Your task to perform on an android device: Set the phone to "Do not disturb". Image 0: 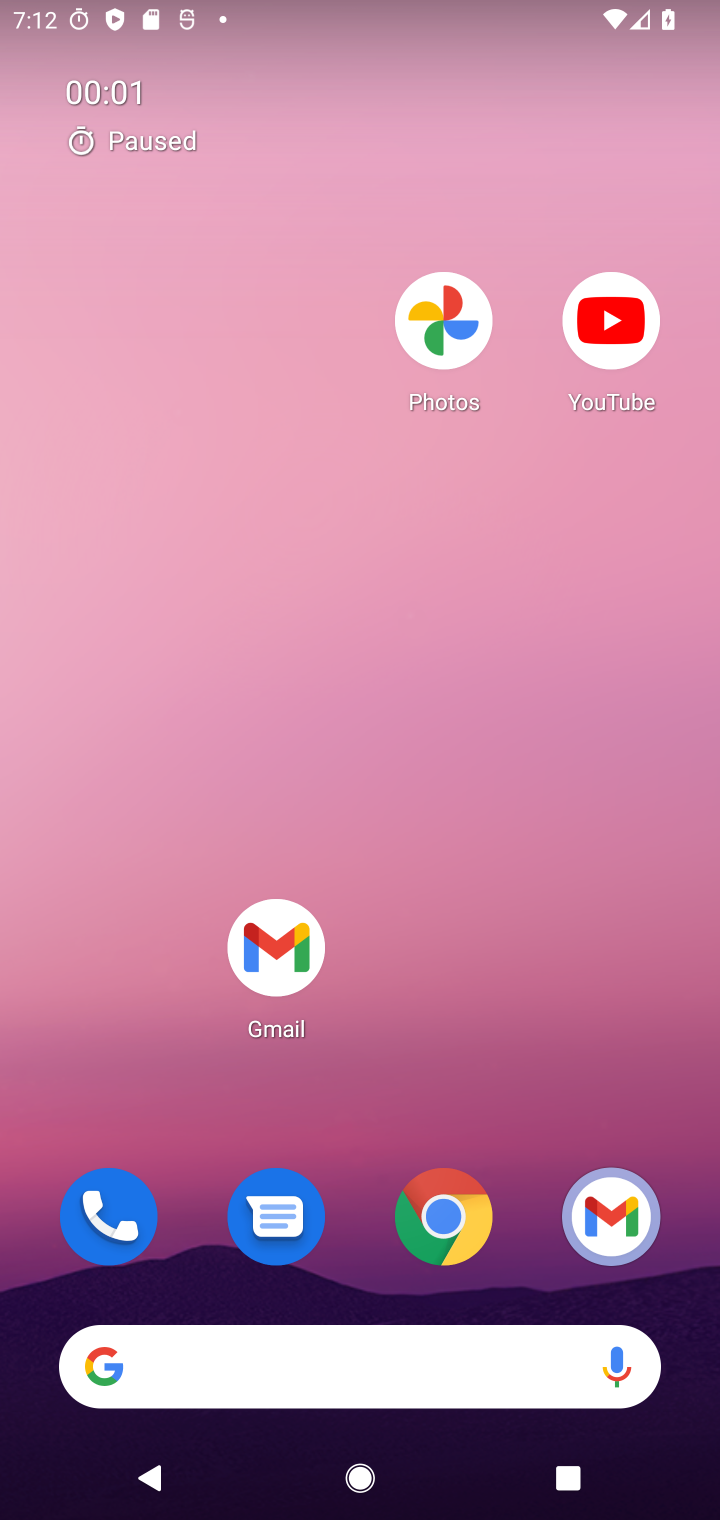
Step 0: drag from (529, 996) to (508, 142)
Your task to perform on an android device: Set the phone to "Do not disturb". Image 1: 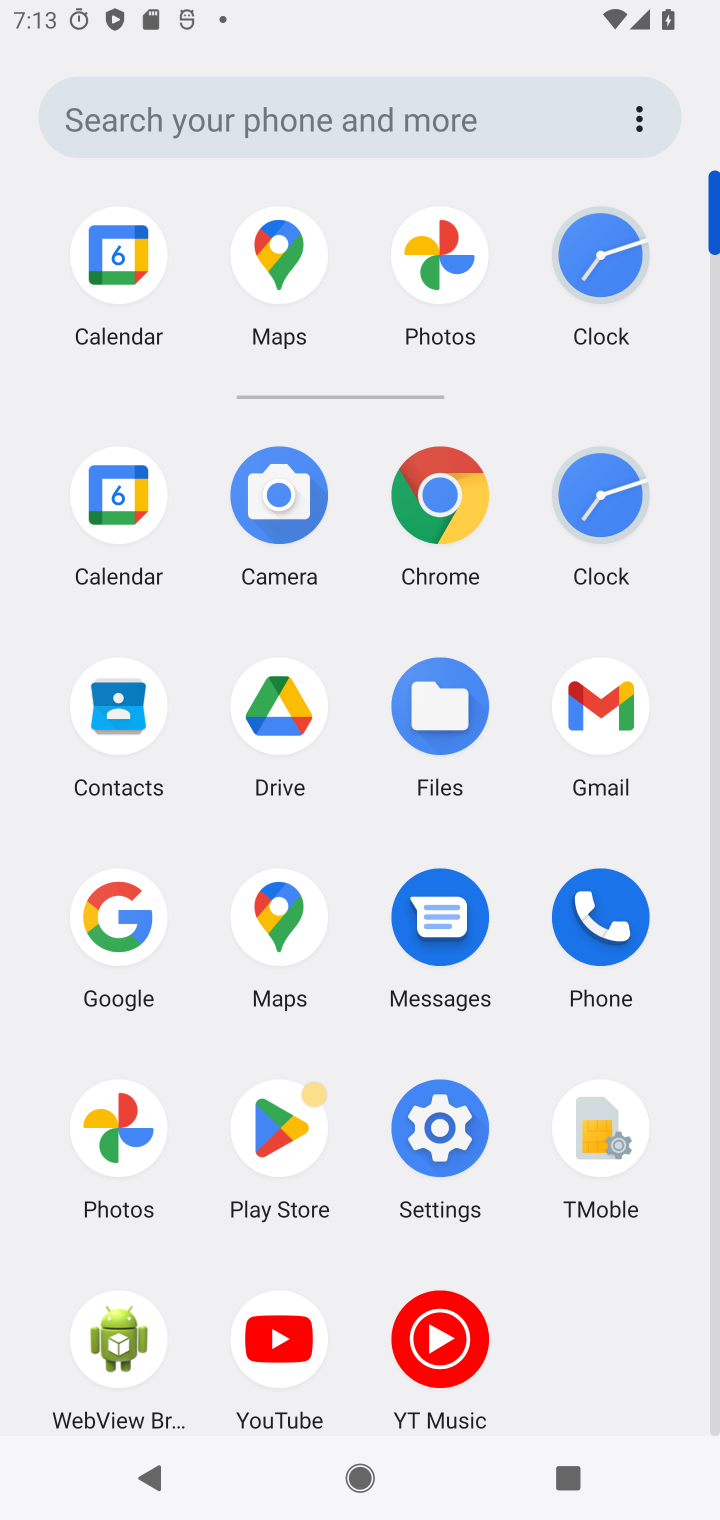
Step 1: drag from (350, 4) to (313, 1260)
Your task to perform on an android device: Set the phone to "Do not disturb". Image 2: 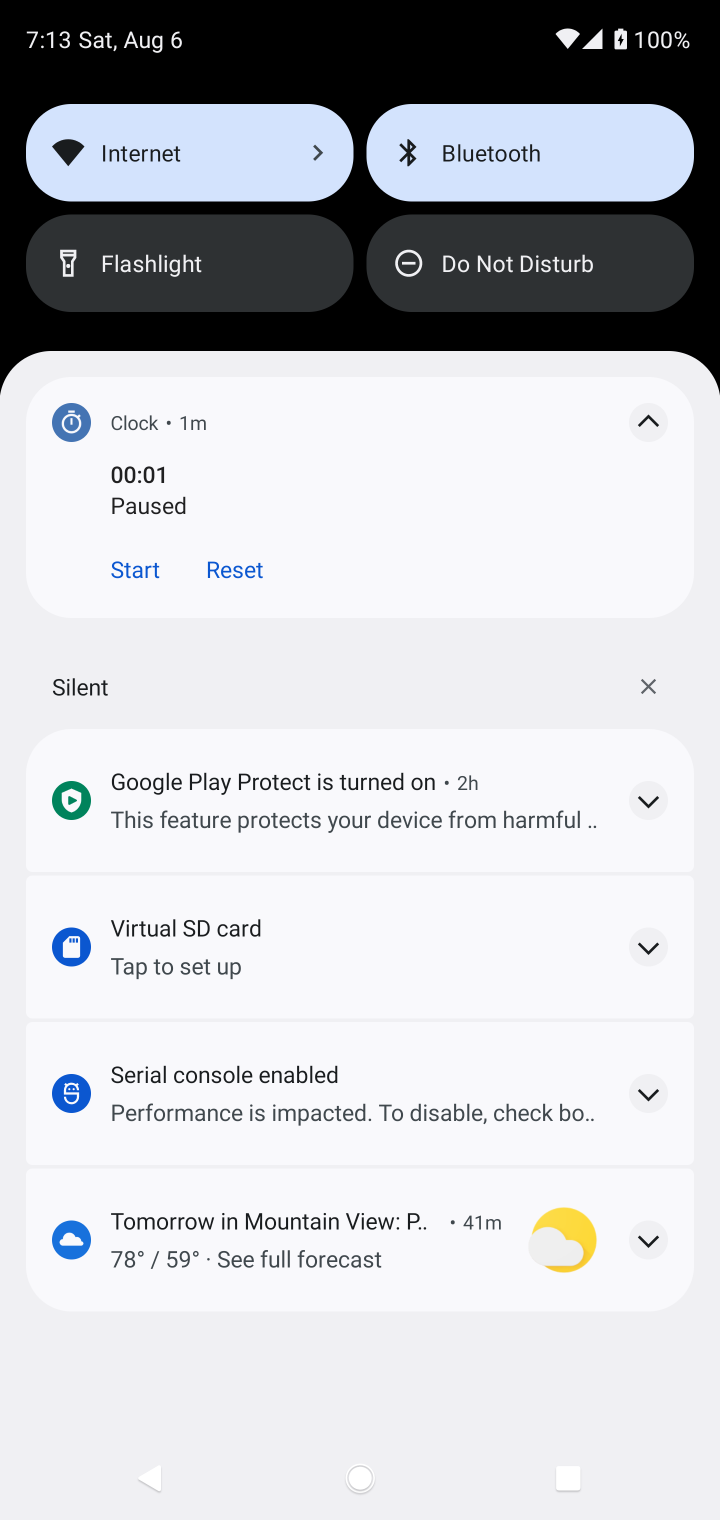
Step 2: click (495, 273)
Your task to perform on an android device: Set the phone to "Do not disturb". Image 3: 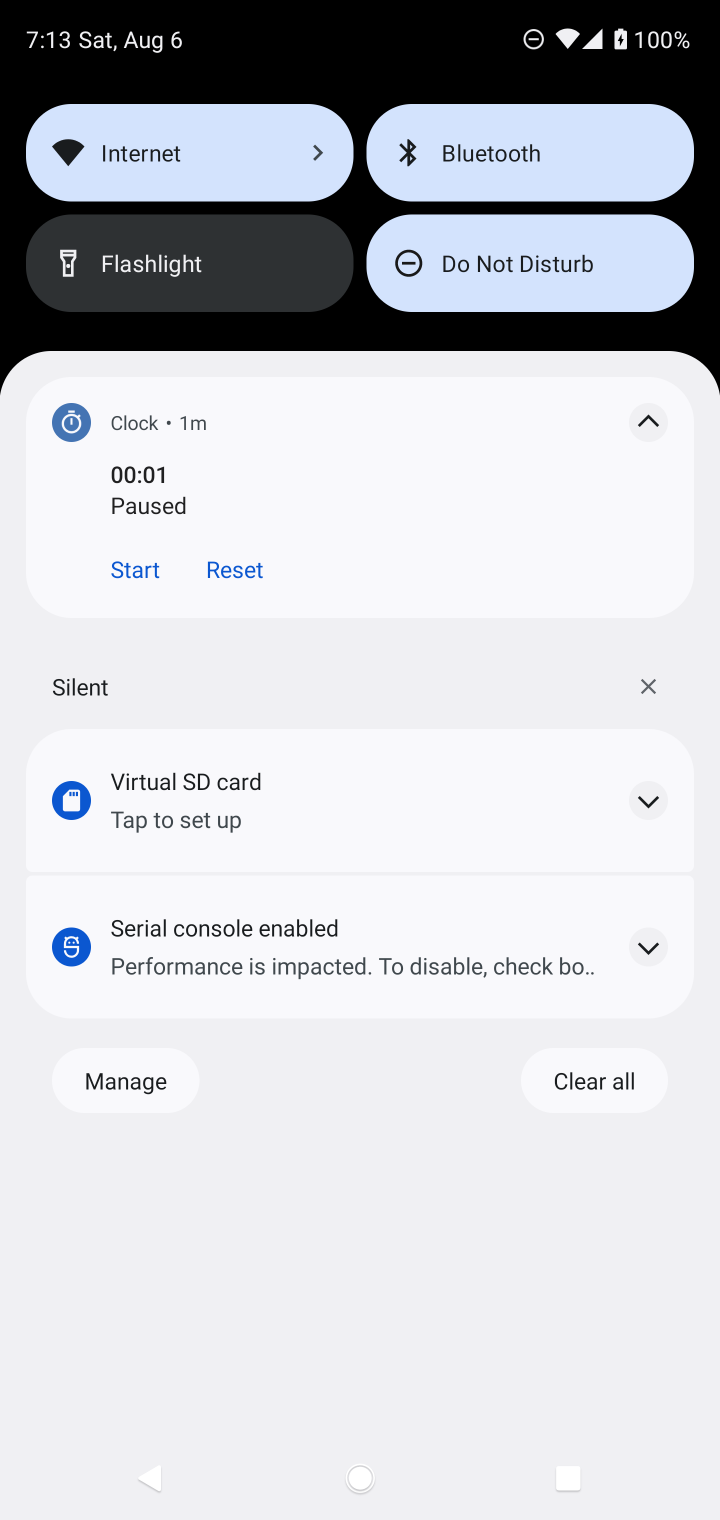
Step 3: task complete